Your task to perform on an android device: Go to calendar. Show me events next week Image 0: 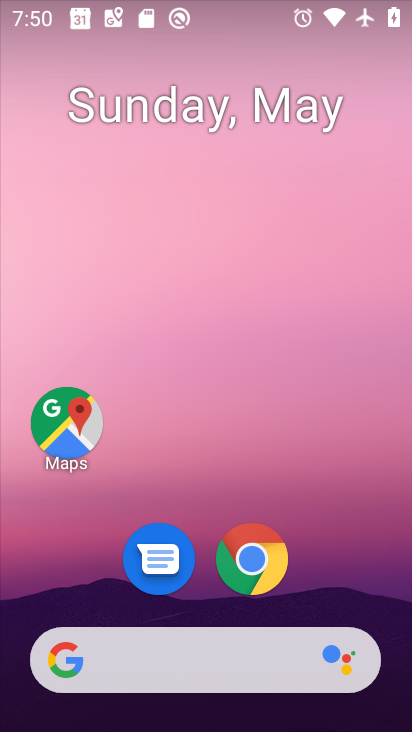
Step 0: drag from (201, 635) to (308, 10)
Your task to perform on an android device: Go to calendar. Show me events next week Image 1: 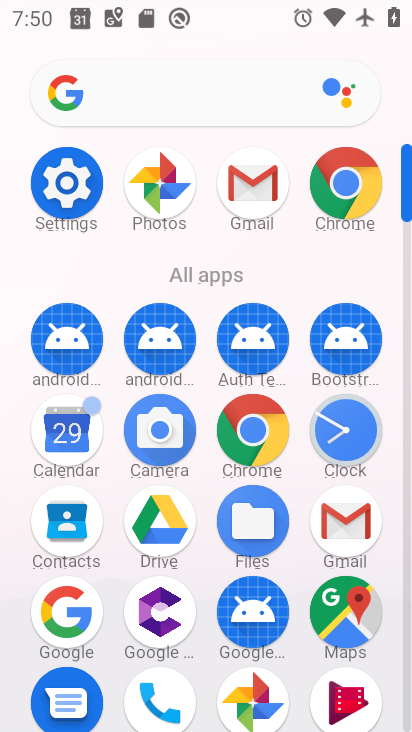
Step 1: click (79, 444)
Your task to perform on an android device: Go to calendar. Show me events next week Image 2: 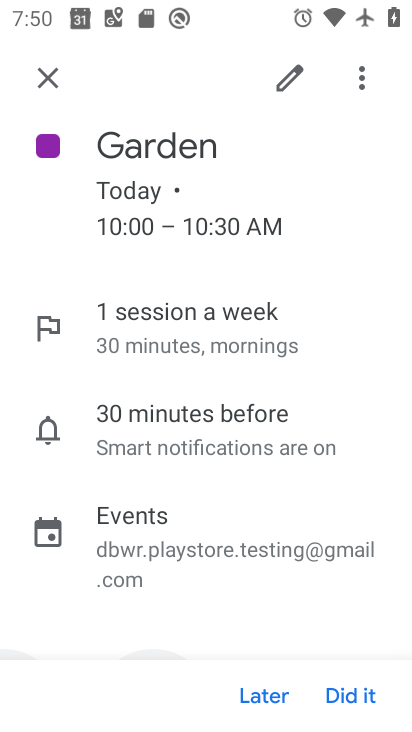
Step 2: click (38, 82)
Your task to perform on an android device: Go to calendar. Show me events next week Image 3: 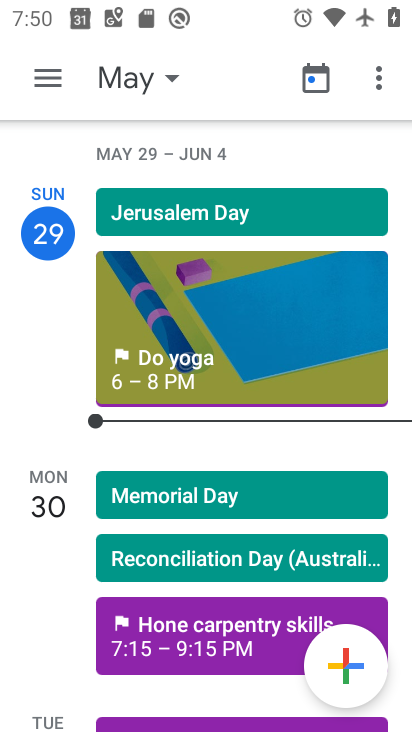
Step 3: click (121, 67)
Your task to perform on an android device: Go to calendar. Show me events next week Image 4: 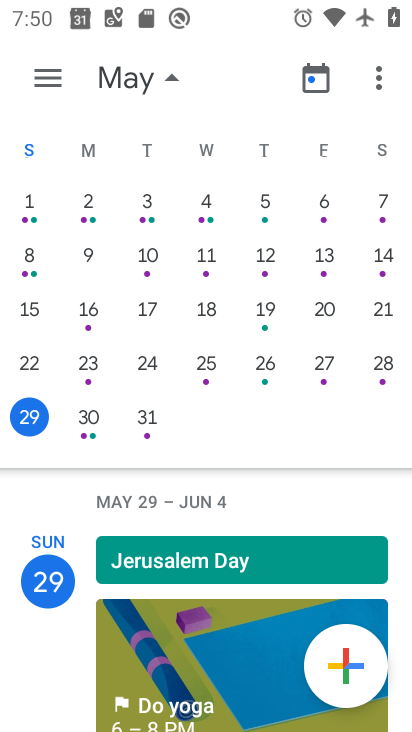
Step 4: drag from (323, 335) to (38, 232)
Your task to perform on an android device: Go to calendar. Show me events next week Image 5: 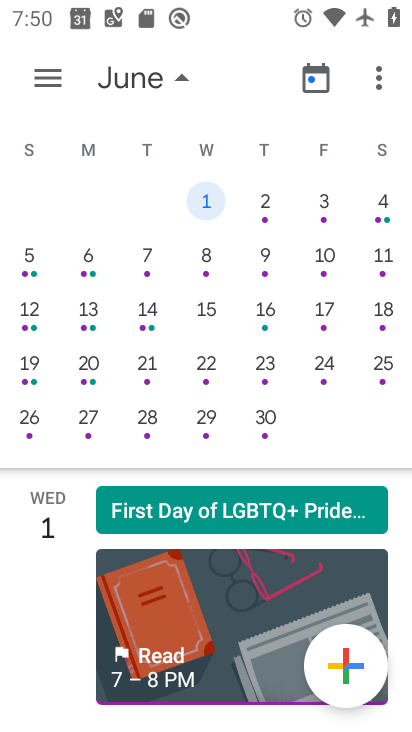
Step 5: click (208, 211)
Your task to perform on an android device: Go to calendar. Show me events next week Image 6: 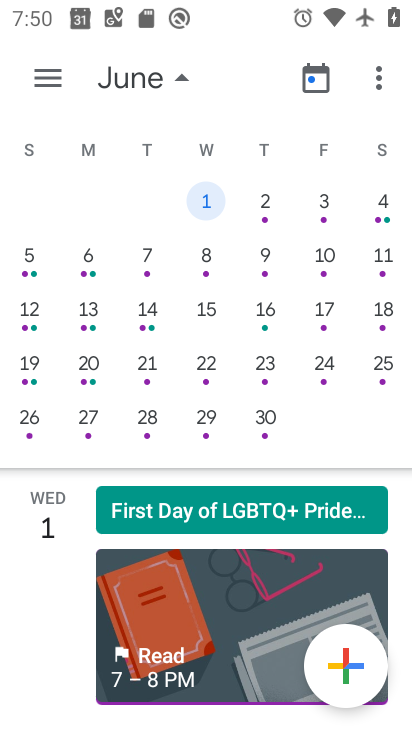
Step 6: click (53, 75)
Your task to perform on an android device: Go to calendar. Show me events next week Image 7: 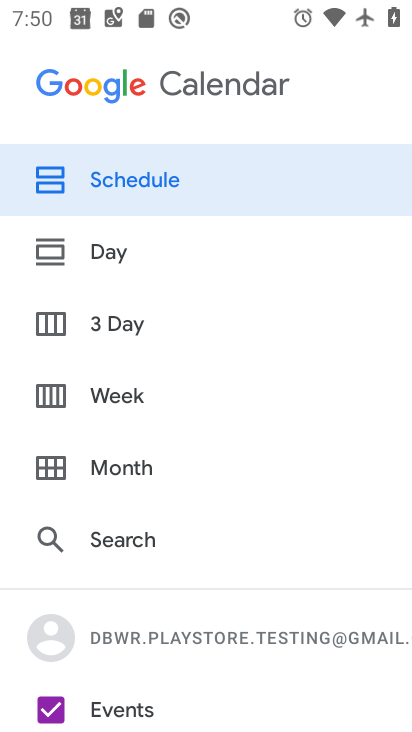
Step 7: click (125, 385)
Your task to perform on an android device: Go to calendar. Show me events next week Image 8: 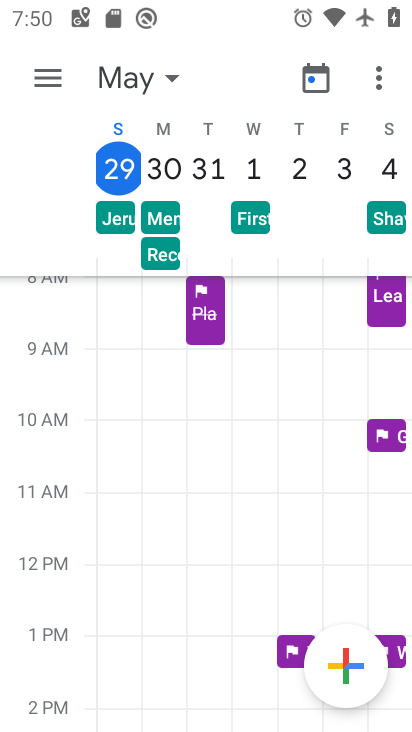
Step 8: click (61, 73)
Your task to perform on an android device: Go to calendar. Show me events next week Image 9: 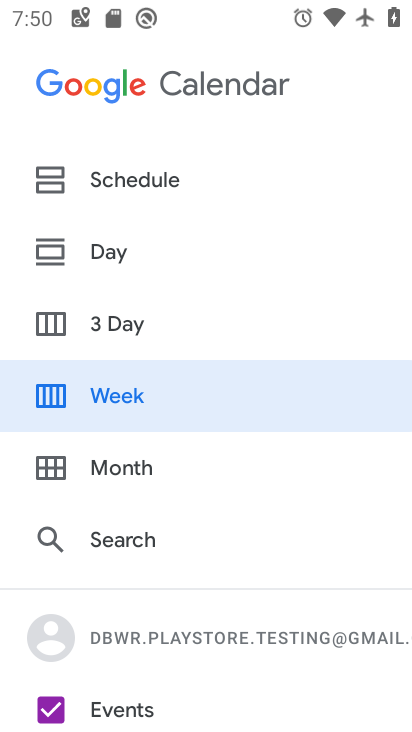
Step 9: click (116, 183)
Your task to perform on an android device: Go to calendar. Show me events next week Image 10: 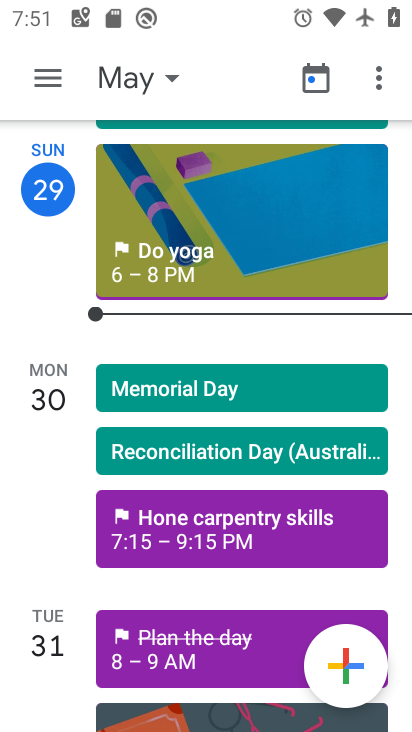
Step 10: drag from (205, 570) to (267, 220)
Your task to perform on an android device: Go to calendar. Show me events next week Image 11: 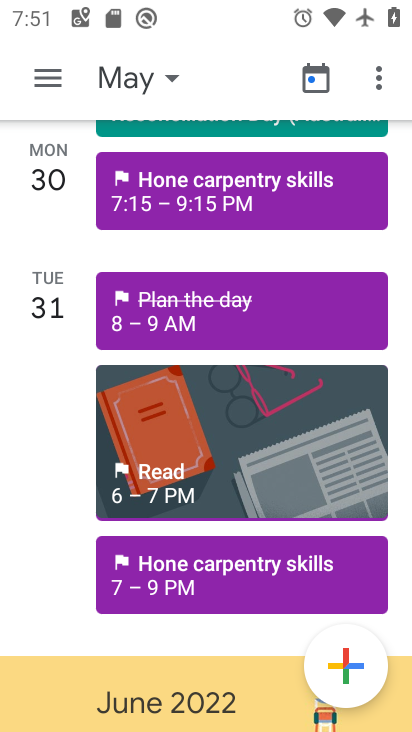
Step 11: click (223, 208)
Your task to perform on an android device: Go to calendar. Show me events next week Image 12: 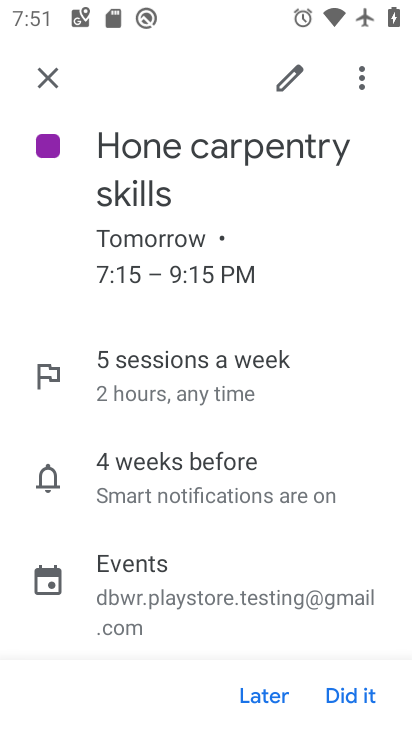
Step 12: task complete